Your task to perform on an android device: set the timer Image 0: 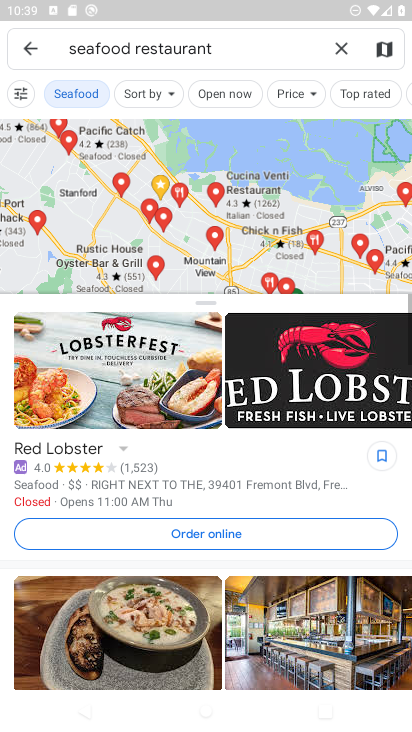
Step 0: press home button
Your task to perform on an android device: set the timer Image 1: 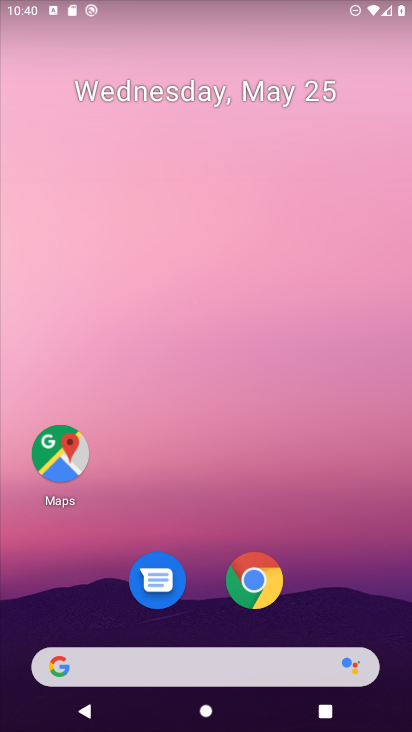
Step 1: drag from (0, 0) to (253, 174)
Your task to perform on an android device: set the timer Image 2: 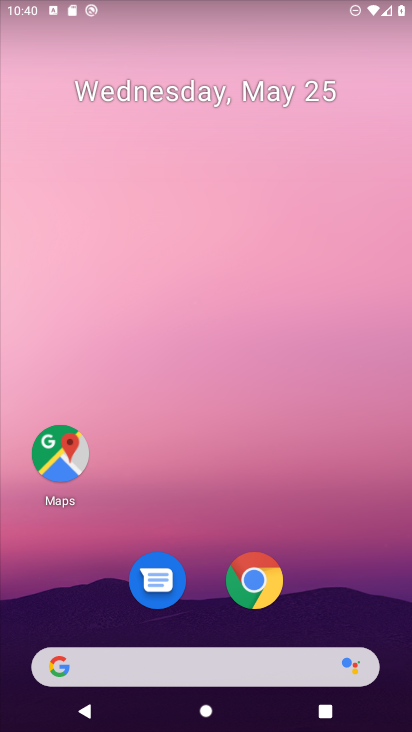
Step 2: drag from (63, 467) to (393, 0)
Your task to perform on an android device: set the timer Image 3: 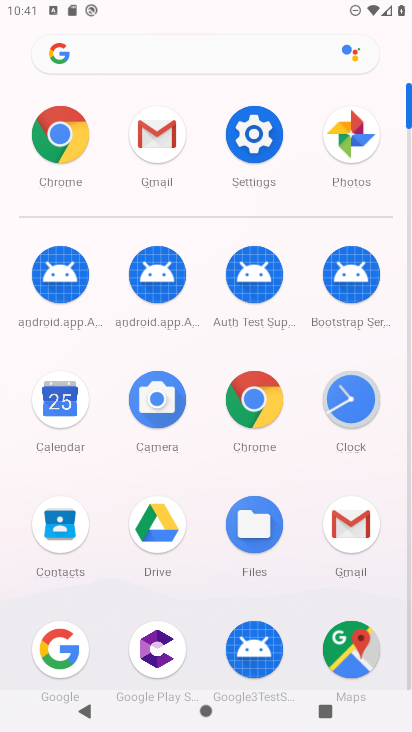
Step 3: click (337, 398)
Your task to perform on an android device: set the timer Image 4: 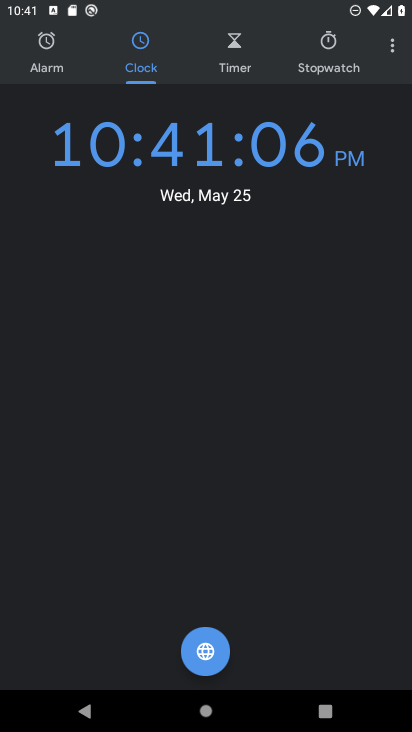
Step 4: click (237, 57)
Your task to perform on an android device: set the timer Image 5: 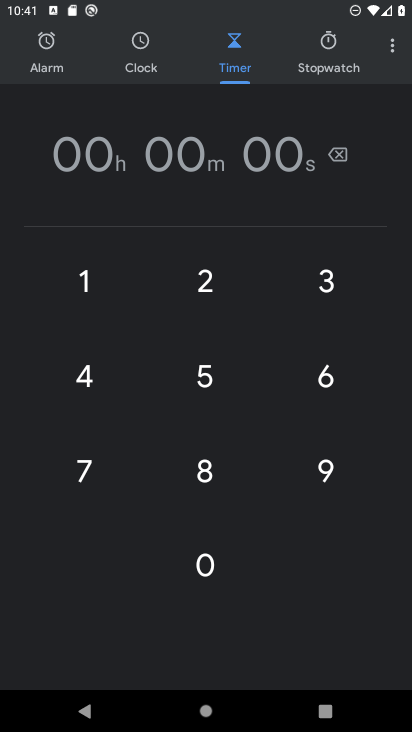
Step 5: click (78, 276)
Your task to perform on an android device: set the timer Image 6: 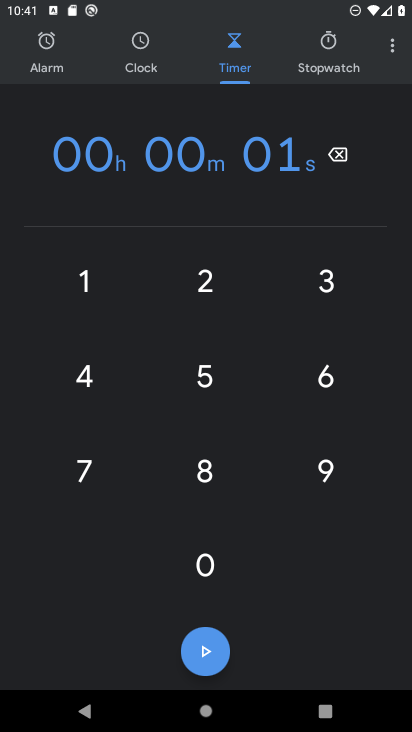
Step 6: click (205, 582)
Your task to perform on an android device: set the timer Image 7: 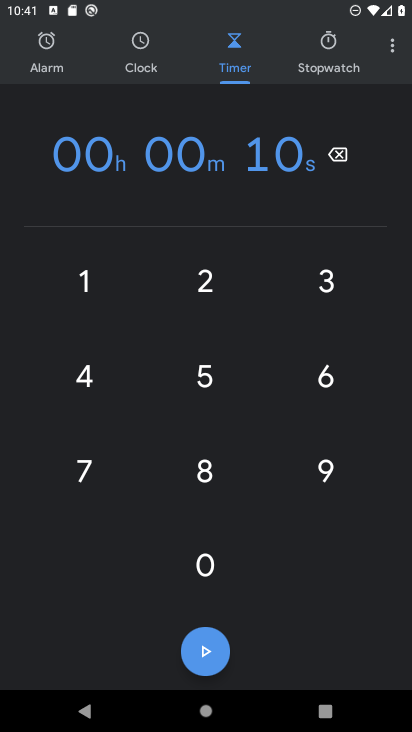
Step 7: click (205, 581)
Your task to perform on an android device: set the timer Image 8: 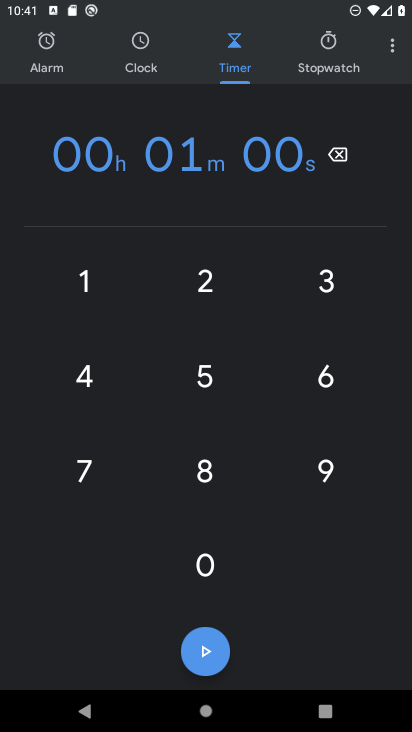
Step 8: click (205, 581)
Your task to perform on an android device: set the timer Image 9: 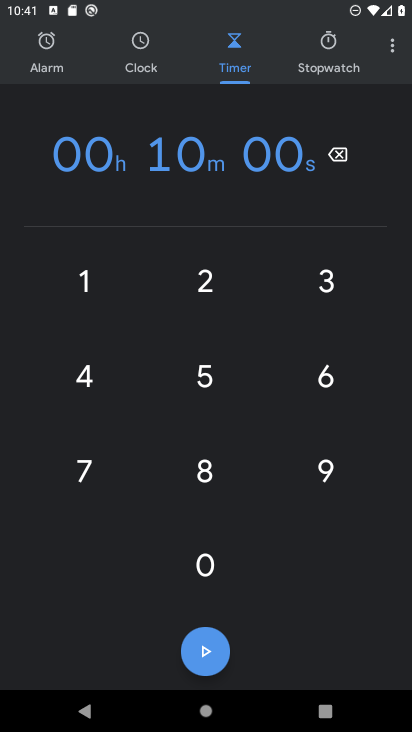
Step 9: click (203, 671)
Your task to perform on an android device: set the timer Image 10: 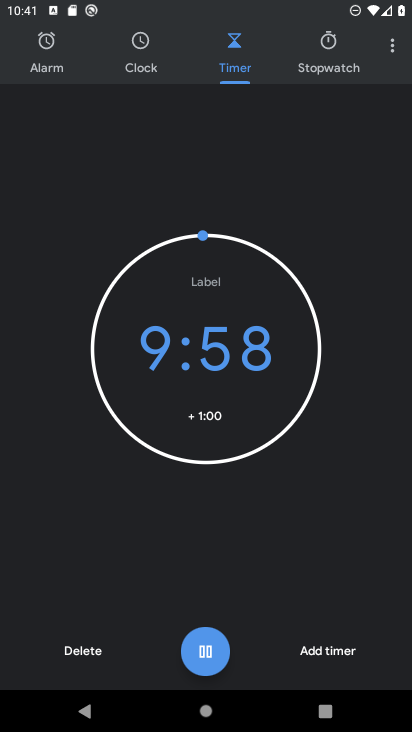
Step 10: task complete